Your task to perform on an android device: move a message to another label in the gmail app Image 0: 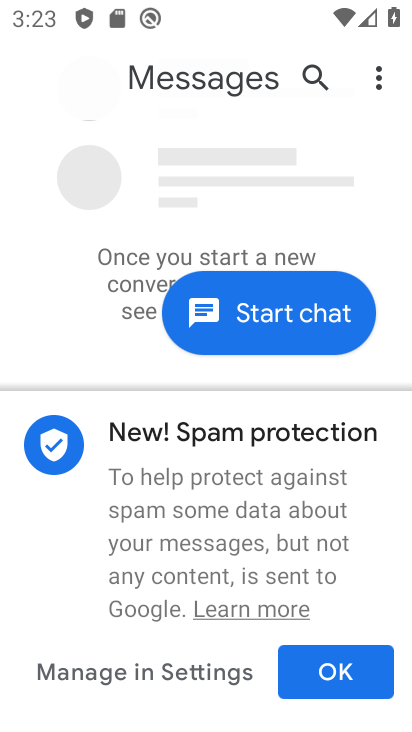
Step 0: press home button
Your task to perform on an android device: move a message to another label in the gmail app Image 1: 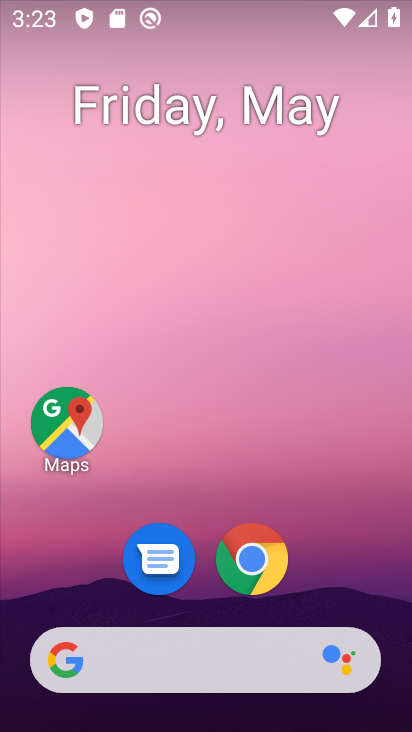
Step 1: drag from (372, 528) to (318, 103)
Your task to perform on an android device: move a message to another label in the gmail app Image 2: 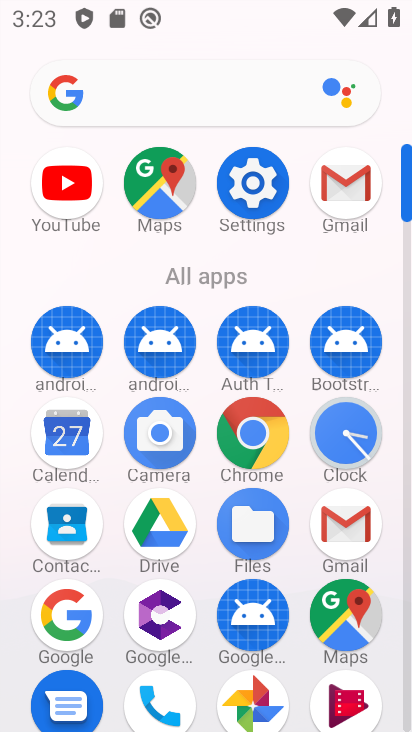
Step 2: click (332, 543)
Your task to perform on an android device: move a message to another label in the gmail app Image 3: 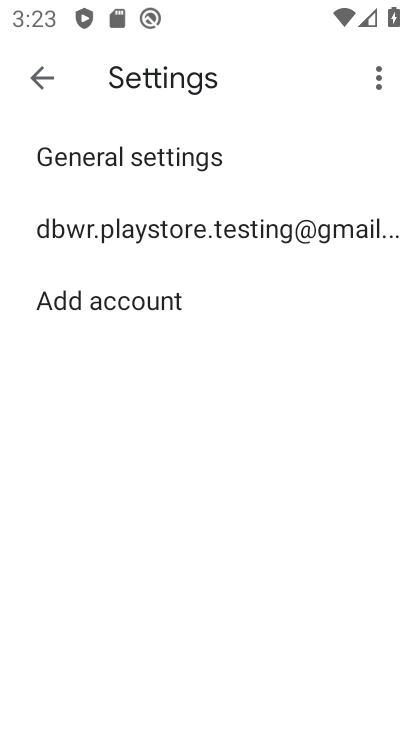
Step 3: click (36, 66)
Your task to perform on an android device: move a message to another label in the gmail app Image 4: 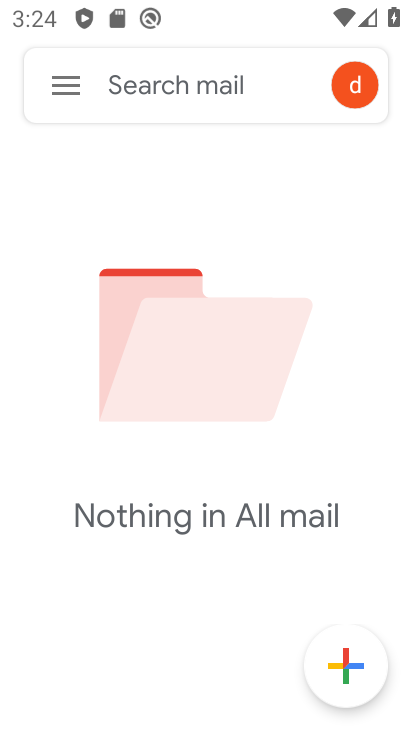
Step 4: click (68, 87)
Your task to perform on an android device: move a message to another label in the gmail app Image 5: 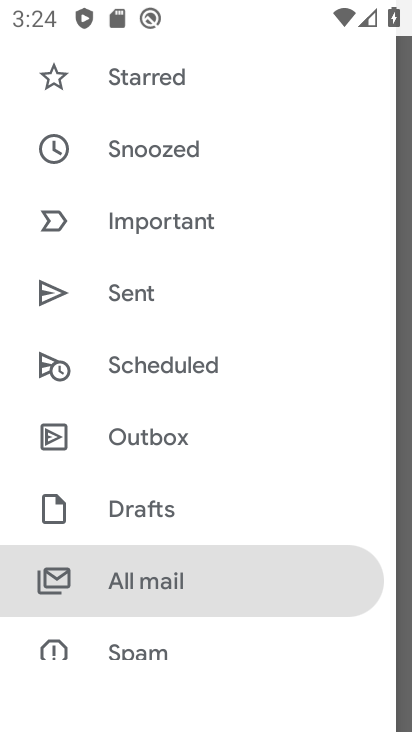
Step 5: click (167, 572)
Your task to perform on an android device: move a message to another label in the gmail app Image 6: 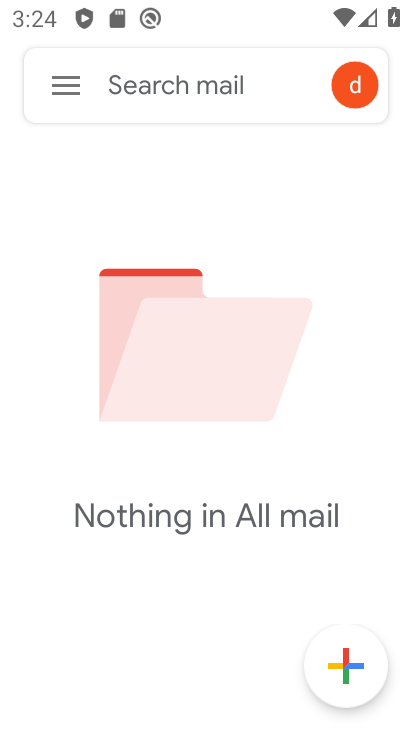
Step 6: task complete